Your task to perform on an android device: set the stopwatch Image 0: 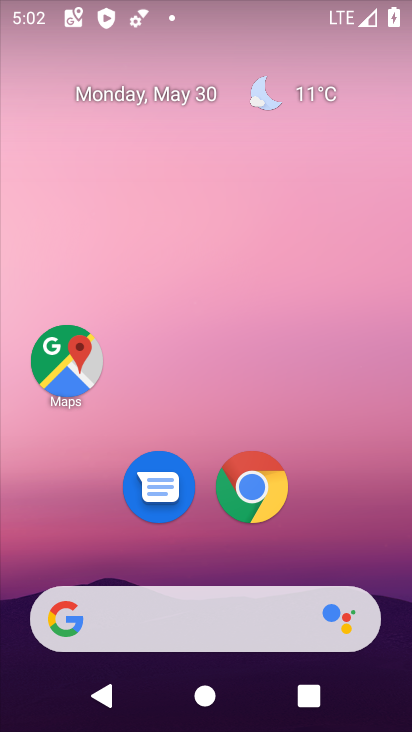
Step 0: drag from (404, 622) to (307, 76)
Your task to perform on an android device: set the stopwatch Image 1: 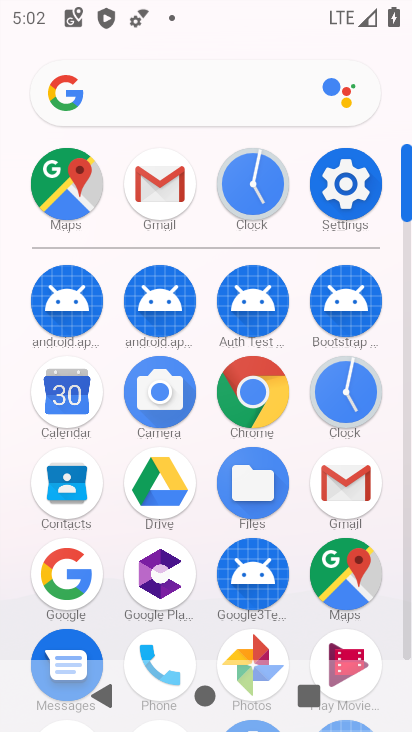
Step 1: click (347, 395)
Your task to perform on an android device: set the stopwatch Image 2: 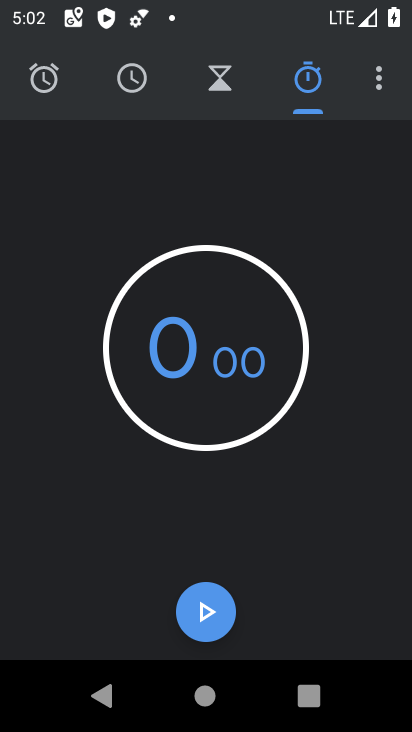
Step 2: task complete